Your task to perform on an android device: create a new album in the google photos Image 0: 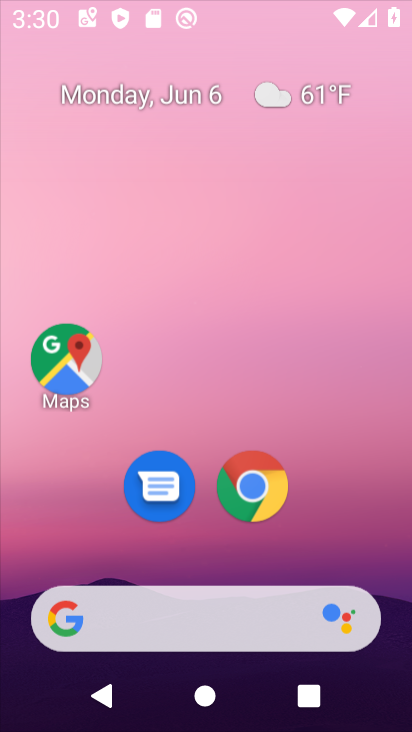
Step 0: press home button
Your task to perform on an android device: create a new album in the google photos Image 1: 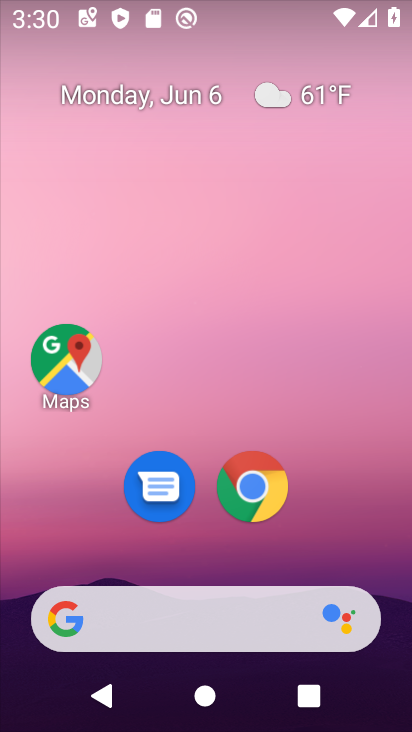
Step 1: drag from (313, 527) to (294, 12)
Your task to perform on an android device: create a new album in the google photos Image 2: 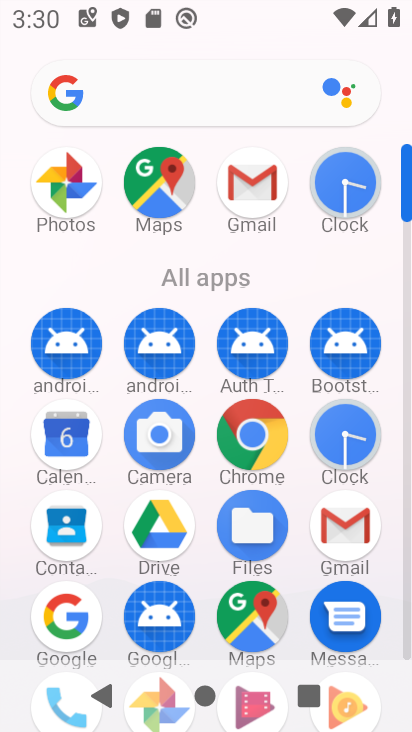
Step 2: click (58, 179)
Your task to perform on an android device: create a new album in the google photos Image 3: 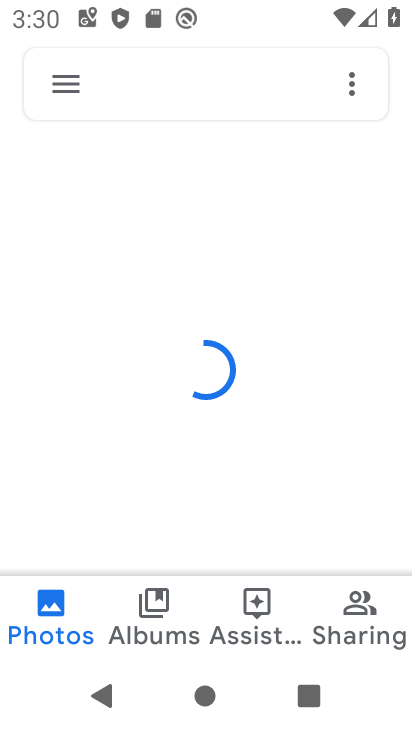
Step 3: click (143, 606)
Your task to perform on an android device: create a new album in the google photos Image 4: 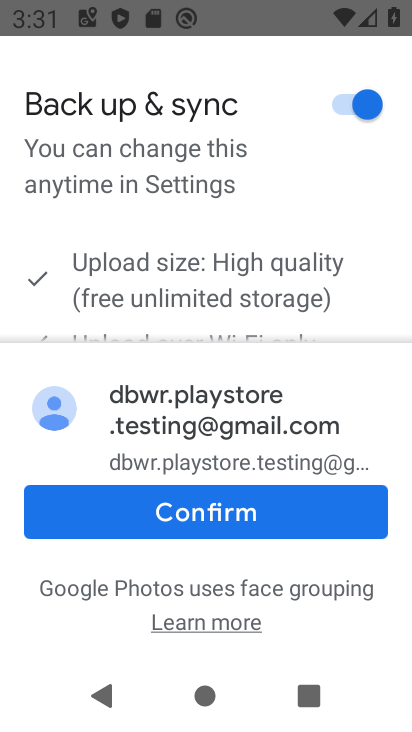
Step 4: click (236, 532)
Your task to perform on an android device: create a new album in the google photos Image 5: 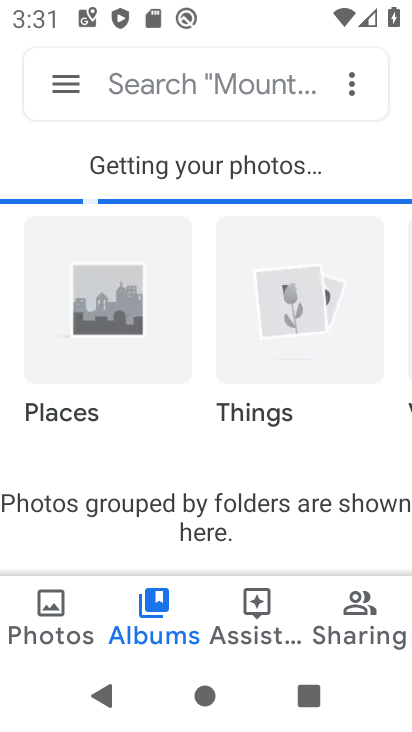
Step 5: click (357, 74)
Your task to perform on an android device: create a new album in the google photos Image 6: 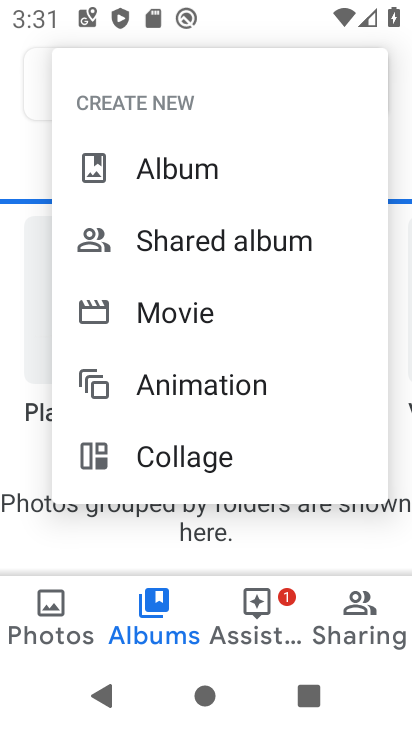
Step 6: click (226, 181)
Your task to perform on an android device: create a new album in the google photos Image 7: 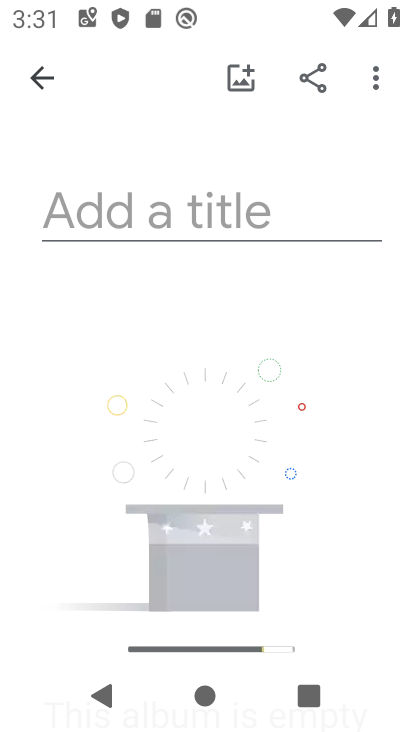
Step 7: click (229, 235)
Your task to perform on an android device: create a new album in the google photos Image 8: 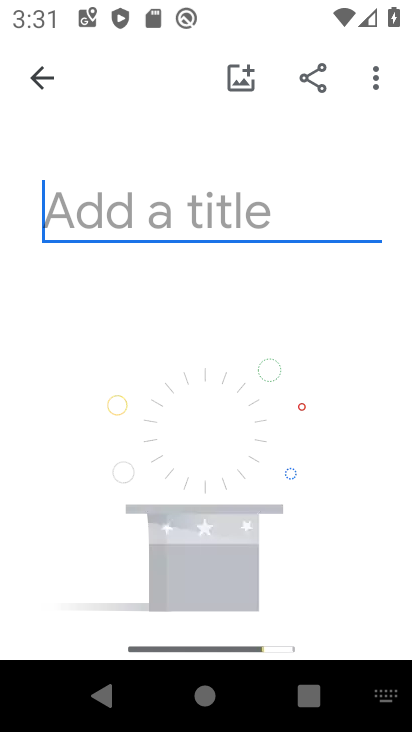
Step 8: type "ham bhi hai tumhare"
Your task to perform on an android device: create a new album in the google photos Image 9: 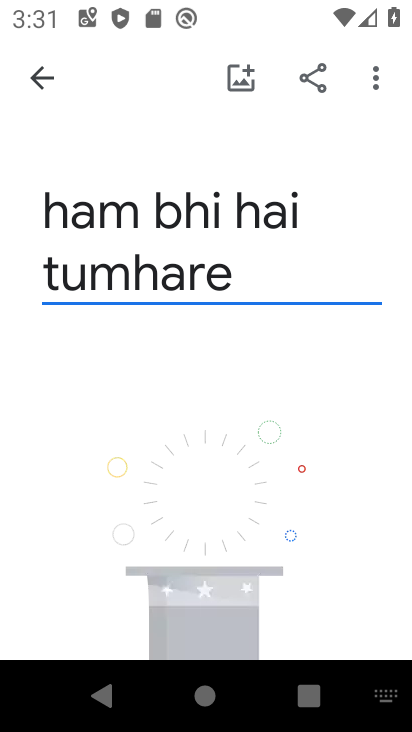
Step 9: drag from (270, 445) to (289, 73)
Your task to perform on an android device: create a new album in the google photos Image 10: 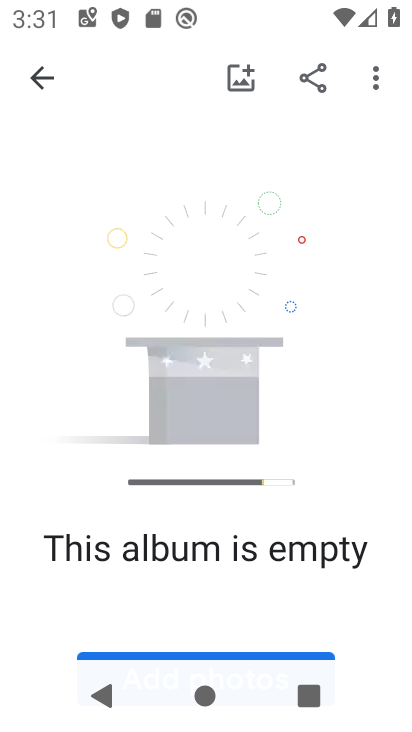
Step 10: click (231, 73)
Your task to perform on an android device: create a new album in the google photos Image 11: 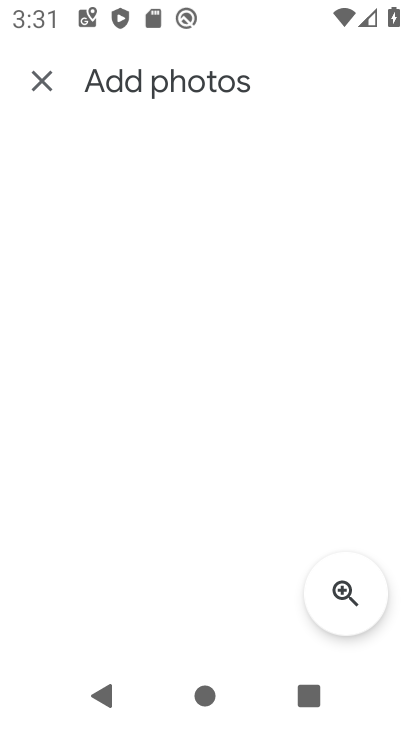
Step 11: click (38, 73)
Your task to perform on an android device: create a new album in the google photos Image 12: 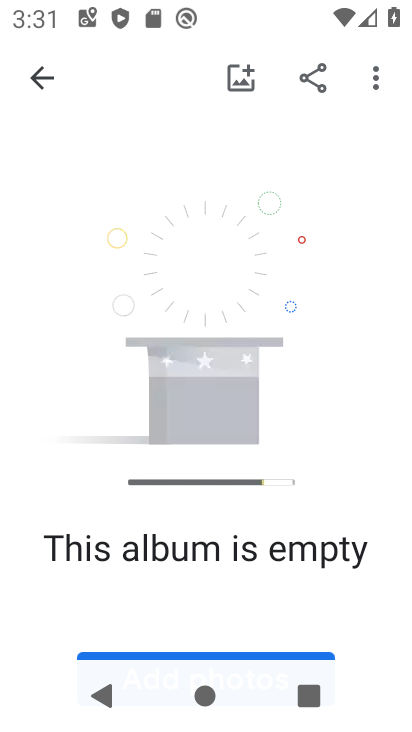
Step 12: click (246, 67)
Your task to perform on an android device: create a new album in the google photos Image 13: 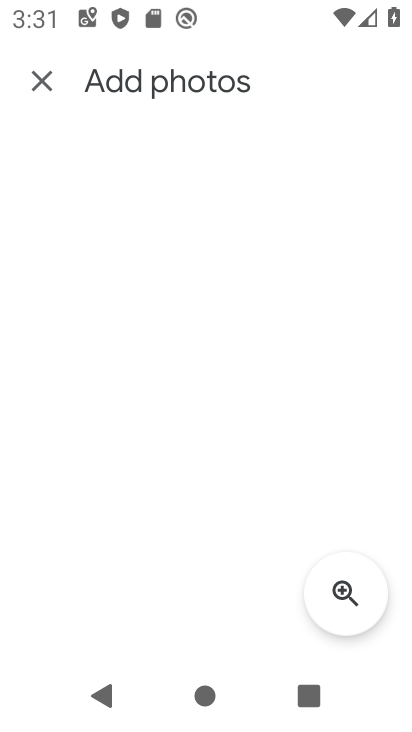
Step 13: click (244, 81)
Your task to perform on an android device: create a new album in the google photos Image 14: 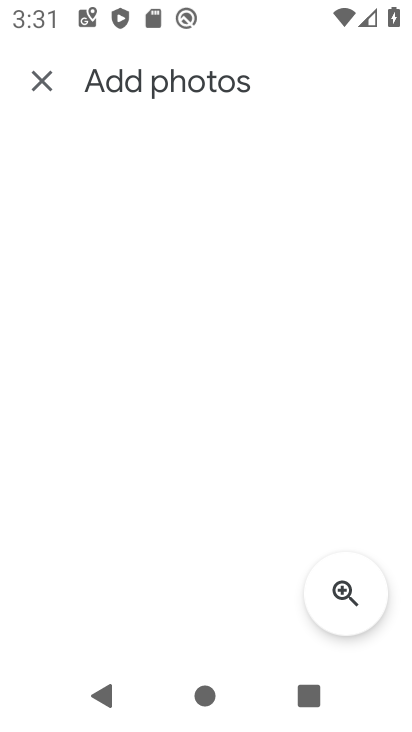
Step 14: click (203, 331)
Your task to perform on an android device: create a new album in the google photos Image 15: 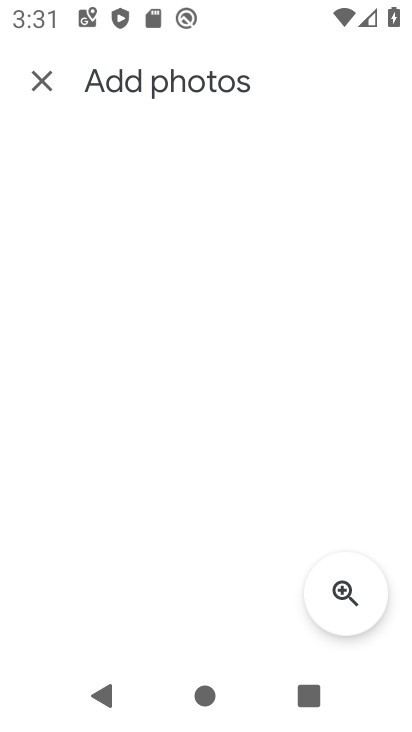
Step 15: click (194, 478)
Your task to perform on an android device: create a new album in the google photos Image 16: 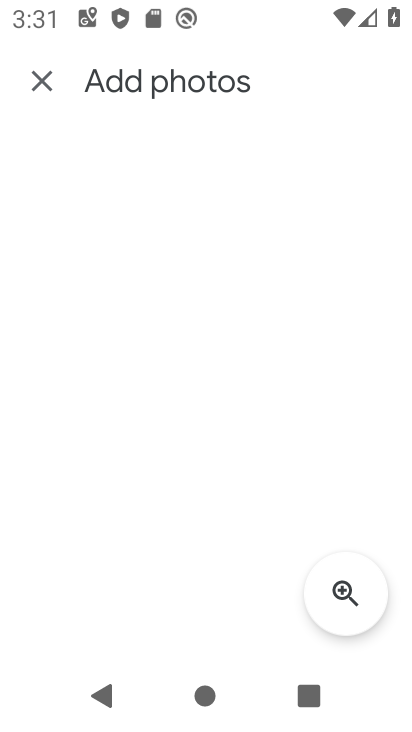
Step 16: click (200, 477)
Your task to perform on an android device: create a new album in the google photos Image 17: 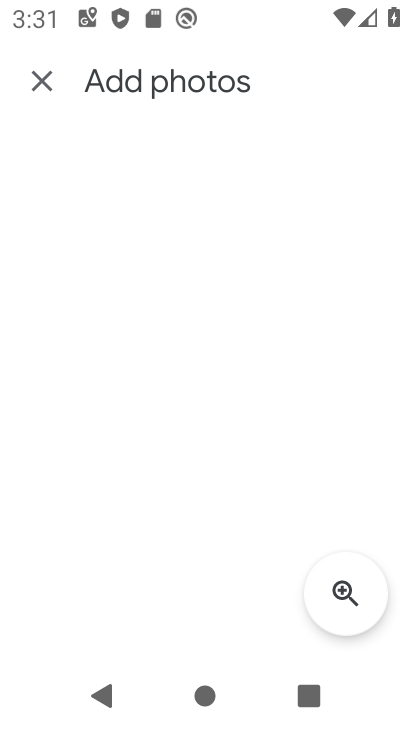
Step 17: click (82, 281)
Your task to perform on an android device: create a new album in the google photos Image 18: 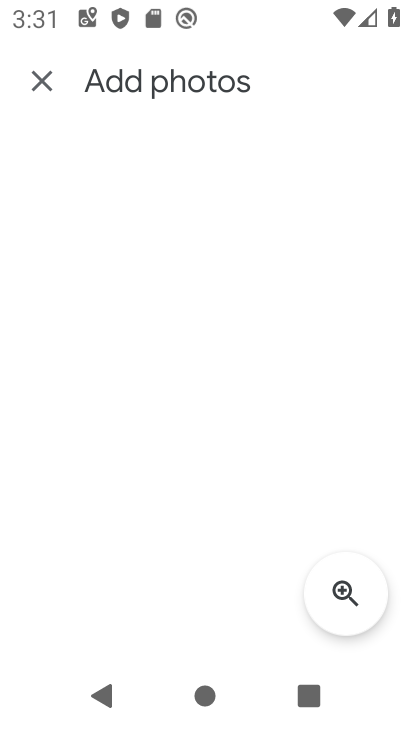
Step 18: click (84, 132)
Your task to perform on an android device: create a new album in the google photos Image 19: 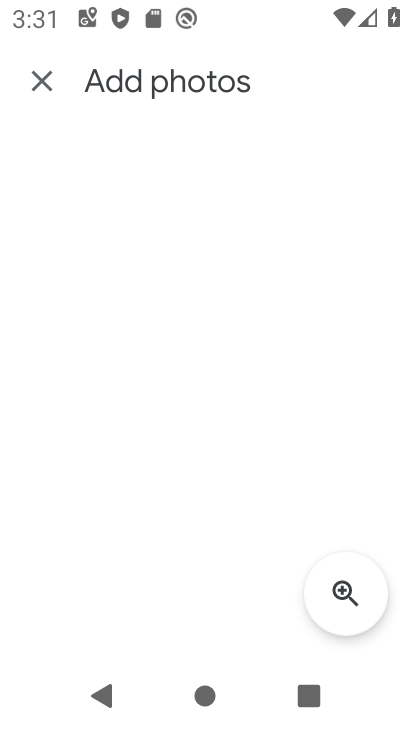
Step 19: click (48, 85)
Your task to perform on an android device: create a new album in the google photos Image 20: 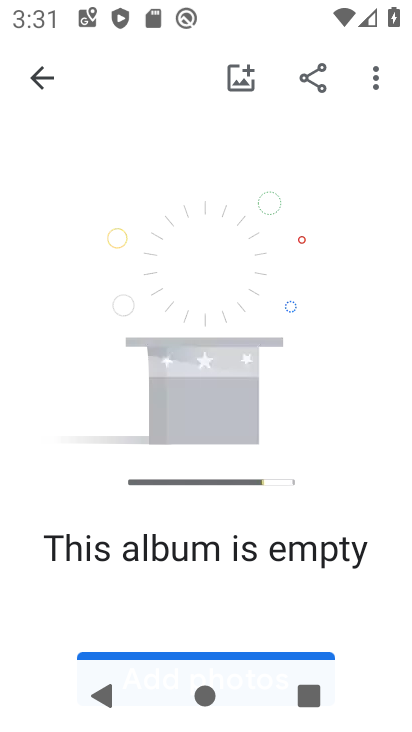
Step 20: click (42, 84)
Your task to perform on an android device: create a new album in the google photos Image 21: 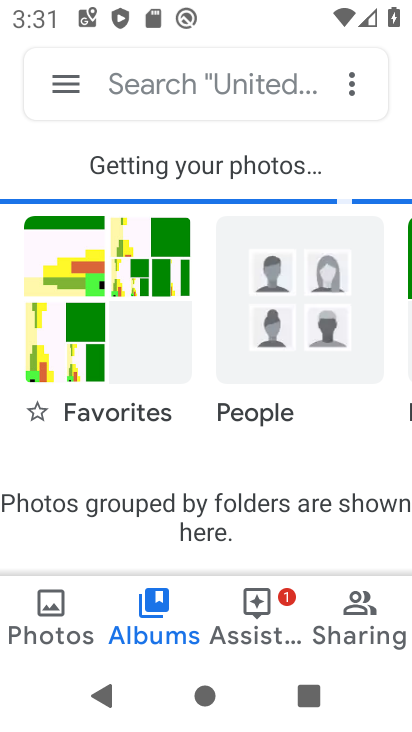
Step 21: task complete